Your task to perform on an android device: move an email to a new category in the gmail app Image 0: 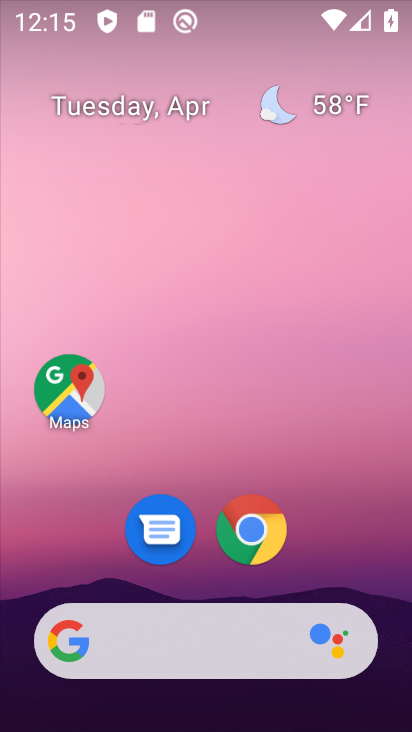
Step 0: drag from (378, 604) to (239, 105)
Your task to perform on an android device: move an email to a new category in the gmail app Image 1: 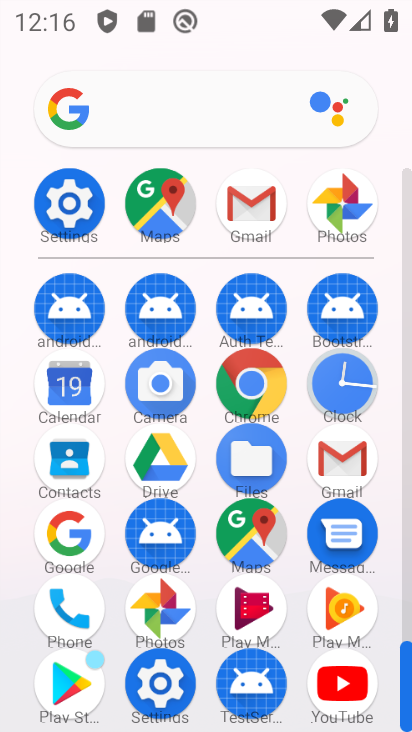
Step 1: click (349, 449)
Your task to perform on an android device: move an email to a new category in the gmail app Image 2: 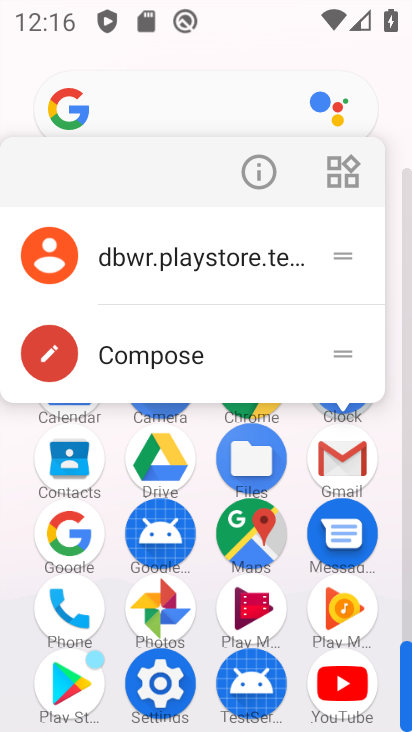
Step 2: click (350, 457)
Your task to perform on an android device: move an email to a new category in the gmail app Image 3: 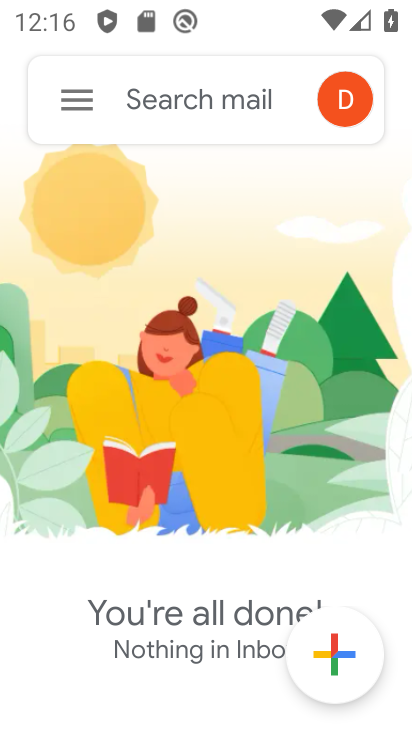
Step 3: task complete